Your task to perform on an android device: turn on wifi Image 0: 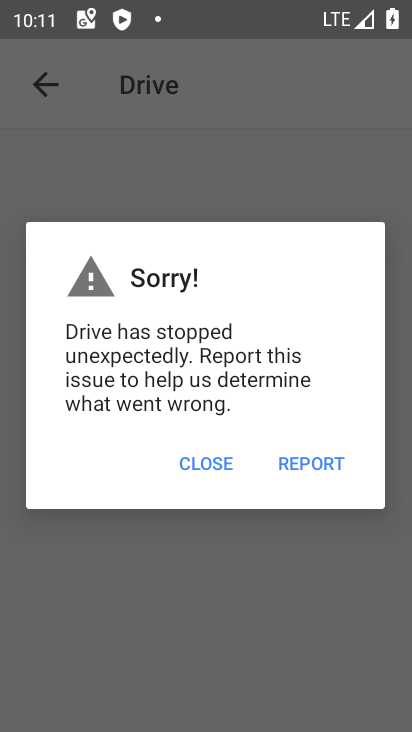
Step 0: press back button
Your task to perform on an android device: turn on wifi Image 1: 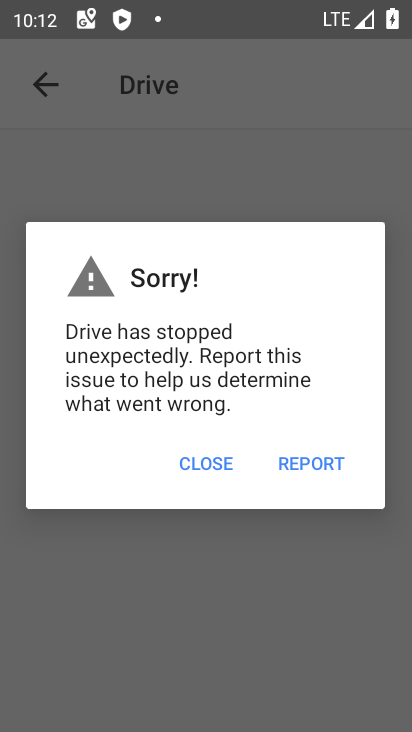
Step 1: press back button
Your task to perform on an android device: turn on wifi Image 2: 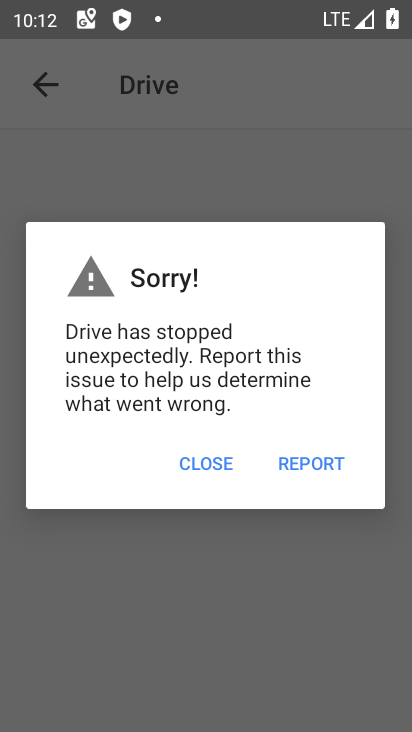
Step 2: press back button
Your task to perform on an android device: turn on wifi Image 3: 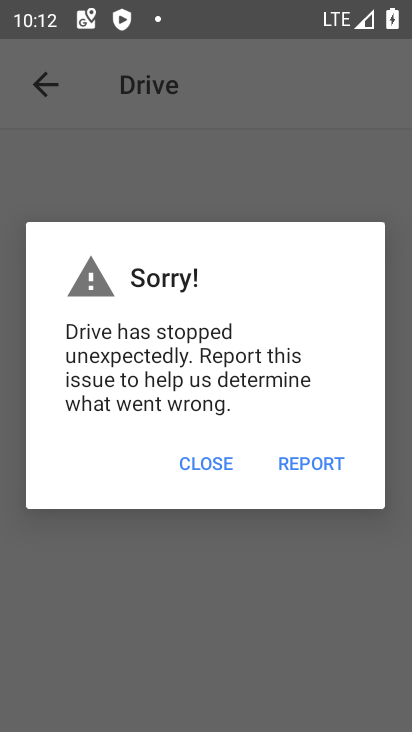
Step 3: press back button
Your task to perform on an android device: turn on wifi Image 4: 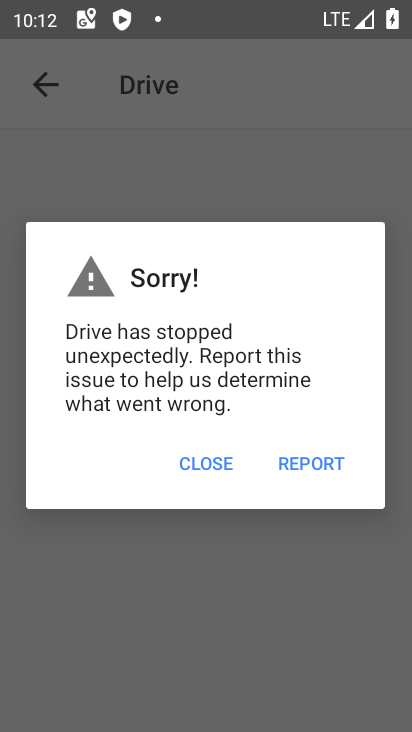
Step 4: press home button
Your task to perform on an android device: turn on wifi Image 5: 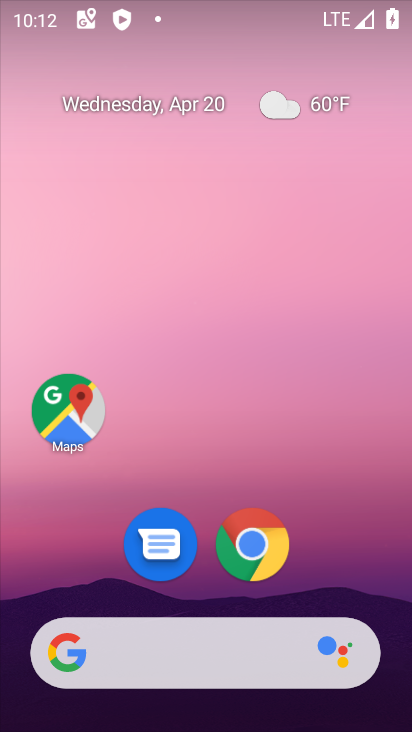
Step 5: drag from (355, 499) to (330, 23)
Your task to perform on an android device: turn on wifi Image 6: 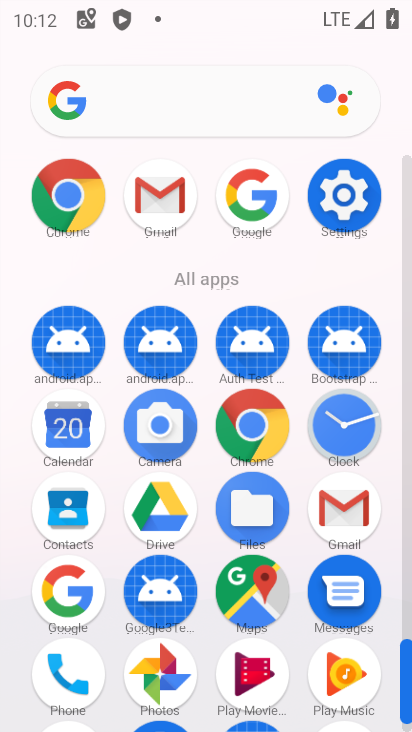
Step 6: click (332, 192)
Your task to perform on an android device: turn on wifi Image 7: 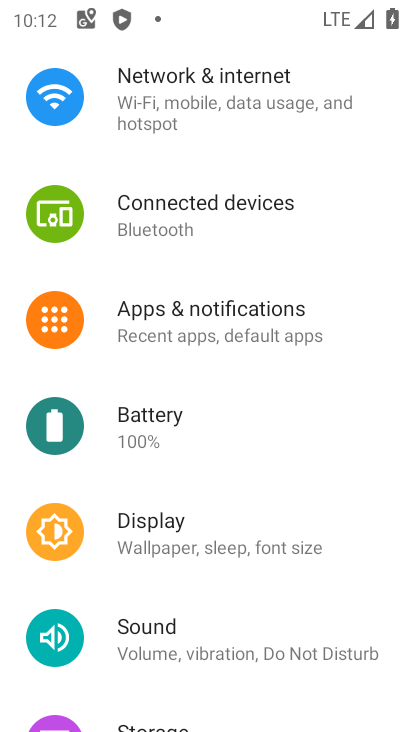
Step 7: click (316, 108)
Your task to perform on an android device: turn on wifi Image 8: 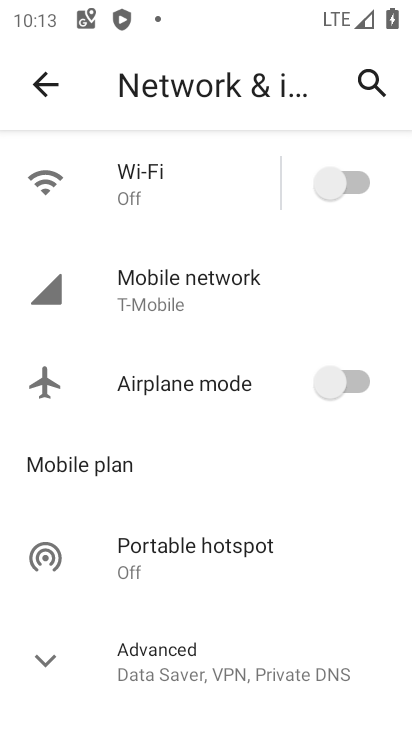
Step 8: click (335, 175)
Your task to perform on an android device: turn on wifi Image 9: 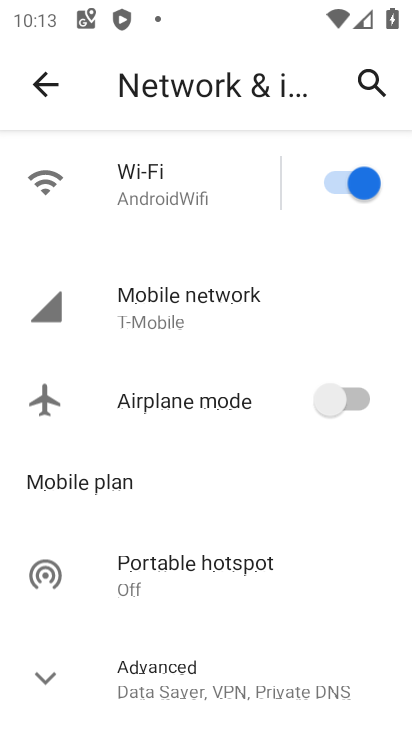
Step 9: task complete